Your task to perform on an android device: install app "Adobe Acrobat Reader: Edit PDF" Image 0: 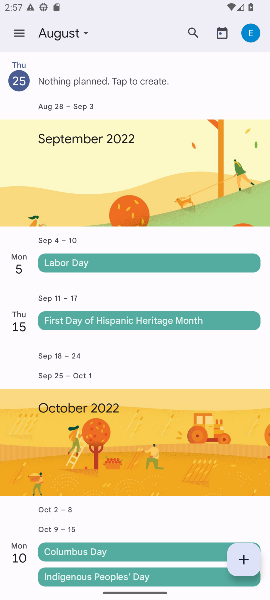
Step 0: press home button
Your task to perform on an android device: install app "Adobe Acrobat Reader: Edit PDF" Image 1: 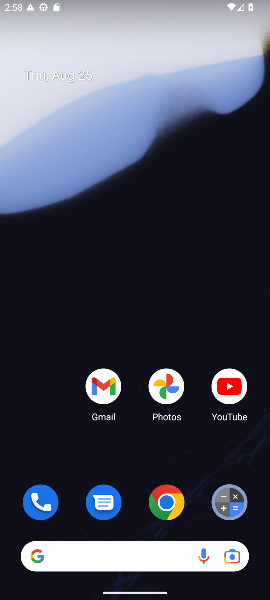
Step 1: drag from (129, 520) to (29, 0)
Your task to perform on an android device: install app "Adobe Acrobat Reader: Edit PDF" Image 2: 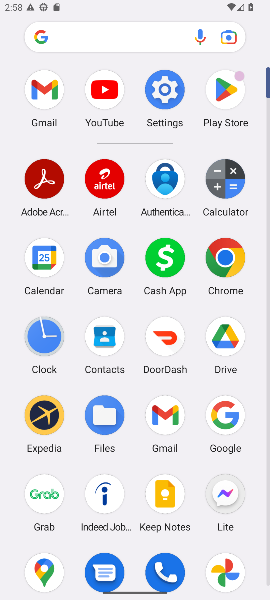
Step 2: click (47, 178)
Your task to perform on an android device: install app "Adobe Acrobat Reader: Edit PDF" Image 3: 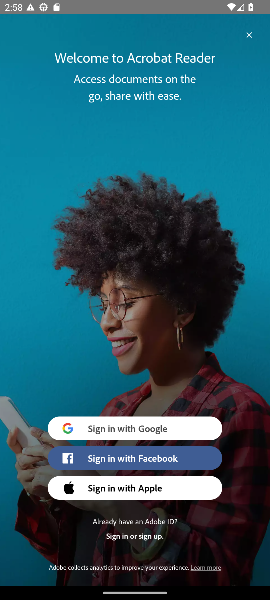
Step 3: task complete